Your task to perform on an android device: check google app version Image 0: 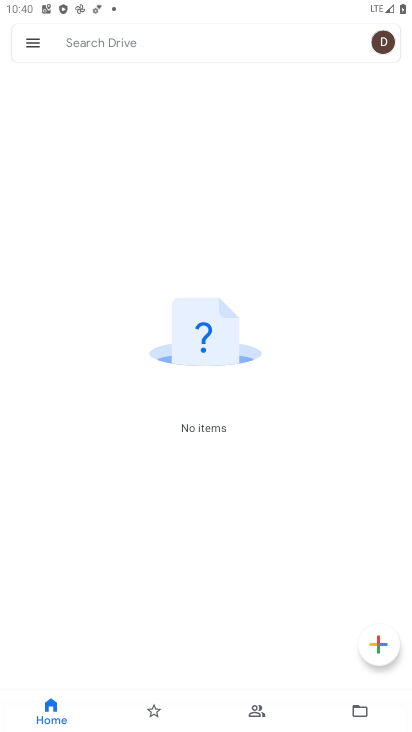
Step 0: press home button
Your task to perform on an android device: check google app version Image 1: 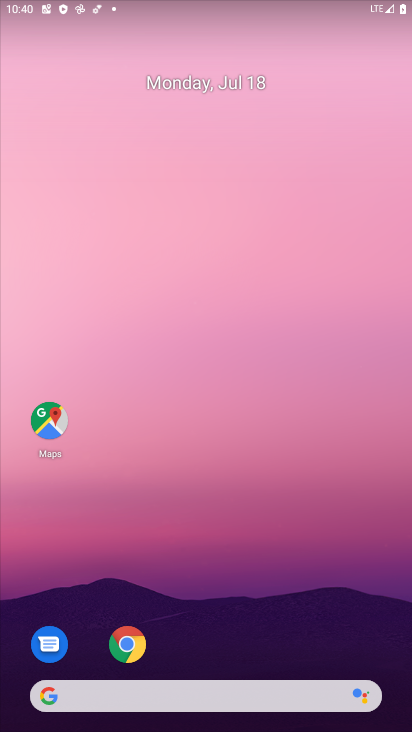
Step 1: drag from (363, 631) to (387, 142)
Your task to perform on an android device: check google app version Image 2: 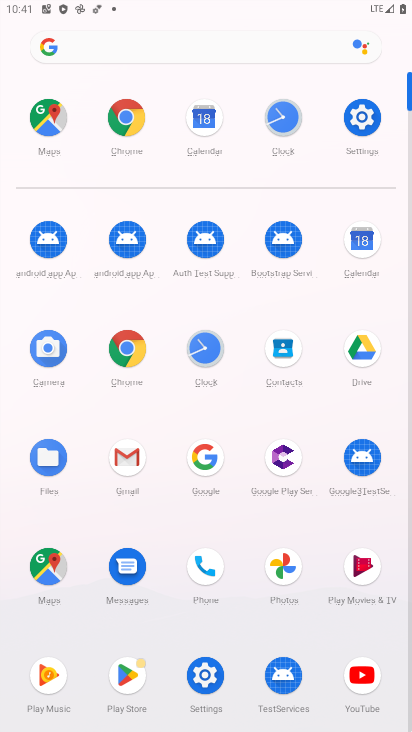
Step 2: click (208, 465)
Your task to perform on an android device: check google app version Image 3: 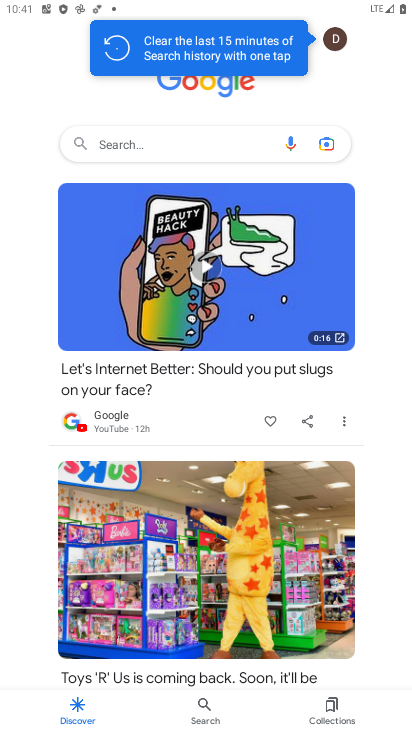
Step 3: click (335, 38)
Your task to perform on an android device: check google app version Image 4: 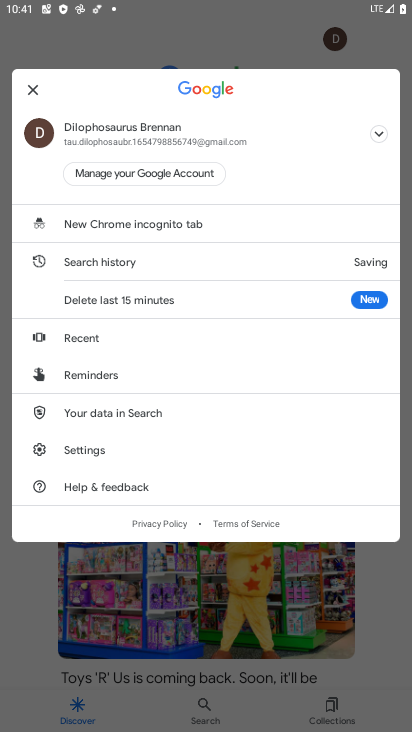
Step 4: click (112, 449)
Your task to perform on an android device: check google app version Image 5: 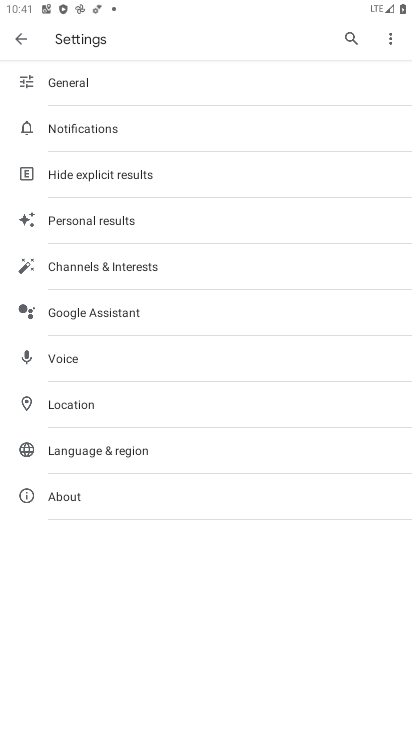
Step 5: click (116, 495)
Your task to perform on an android device: check google app version Image 6: 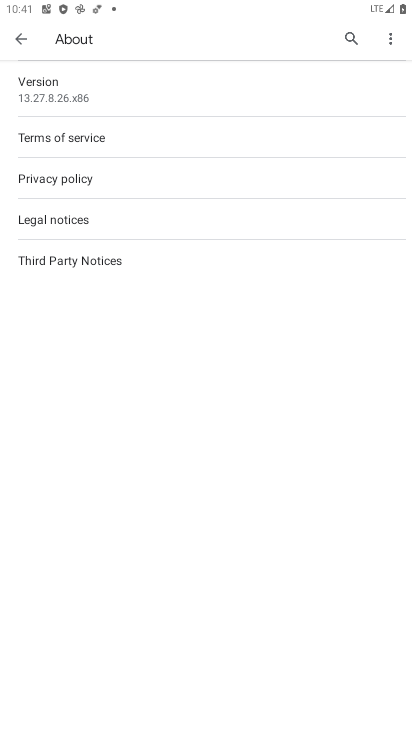
Step 6: task complete